Your task to perform on an android device: Turn off the flashlight Image 0: 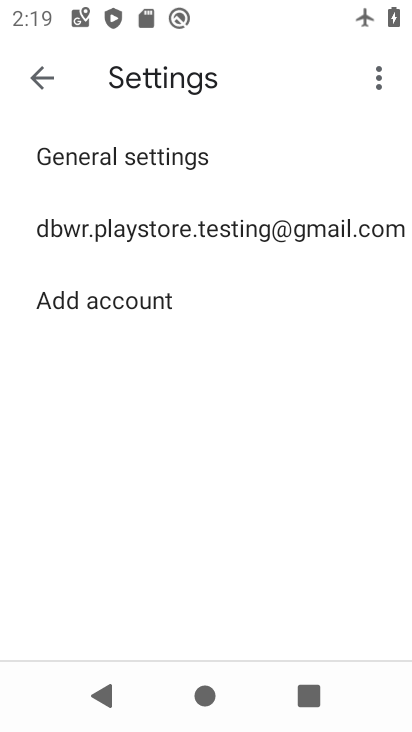
Step 0: press home button
Your task to perform on an android device: Turn off the flashlight Image 1: 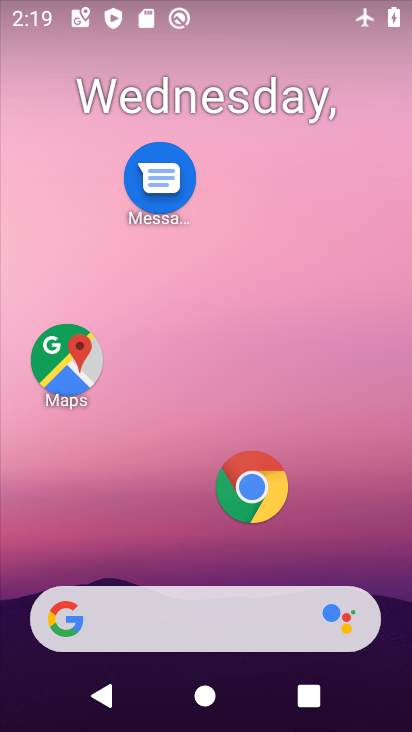
Step 1: drag from (184, 554) to (186, 270)
Your task to perform on an android device: Turn off the flashlight Image 2: 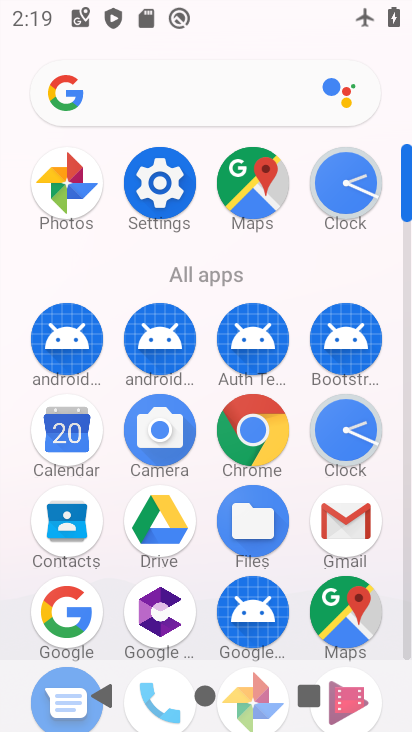
Step 2: click (180, 194)
Your task to perform on an android device: Turn off the flashlight Image 3: 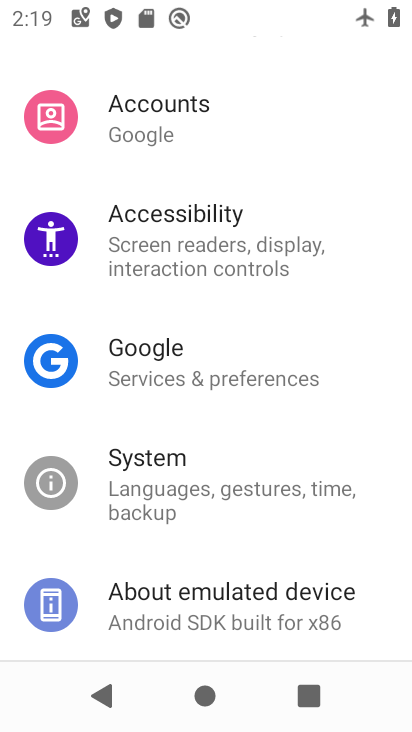
Step 3: task complete